Your task to perform on an android device: change the clock style Image 0: 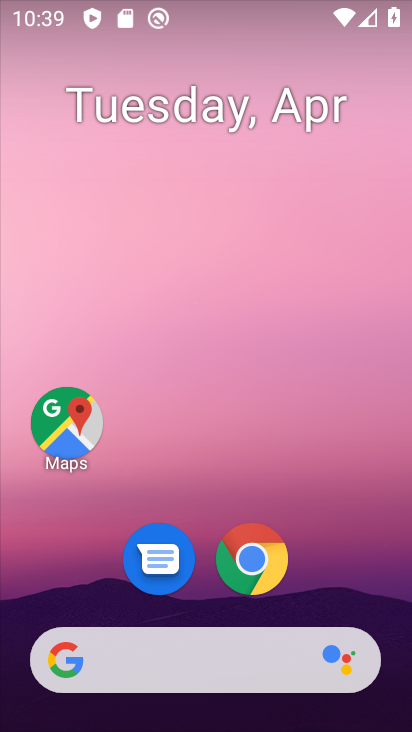
Step 0: drag from (304, 335) to (262, 68)
Your task to perform on an android device: change the clock style Image 1: 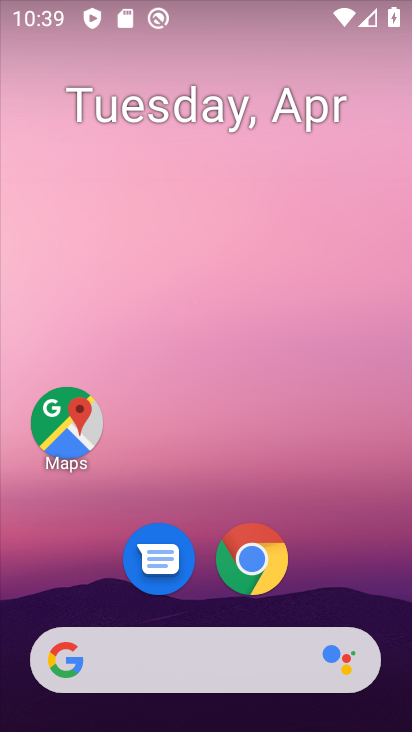
Step 1: drag from (311, 236) to (312, 112)
Your task to perform on an android device: change the clock style Image 2: 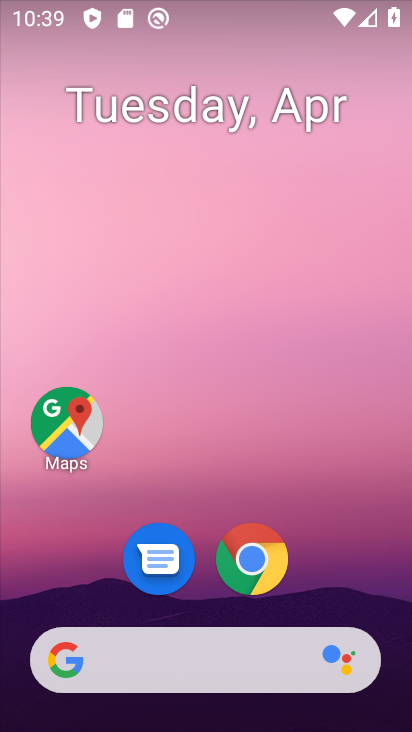
Step 2: drag from (319, 523) to (282, 33)
Your task to perform on an android device: change the clock style Image 3: 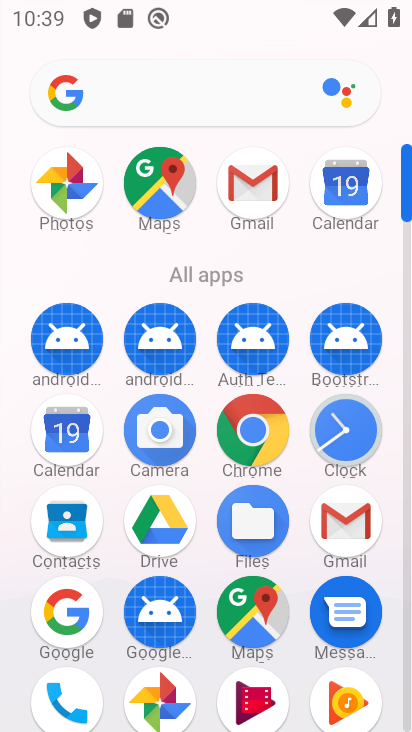
Step 3: click (339, 424)
Your task to perform on an android device: change the clock style Image 4: 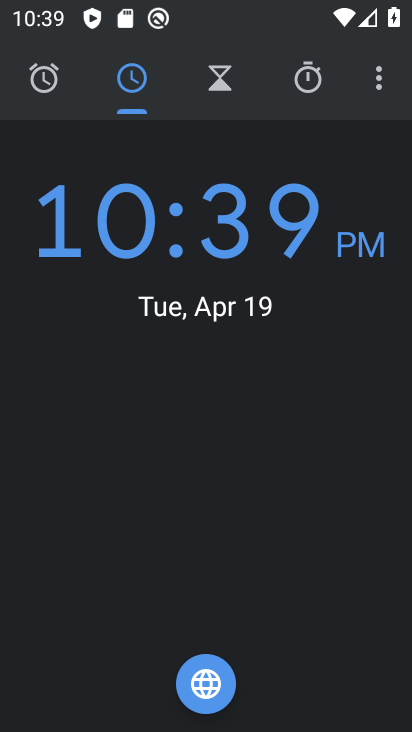
Step 4: click (379, 80)
Your task to perform on an android device: change the clock style Image 5: 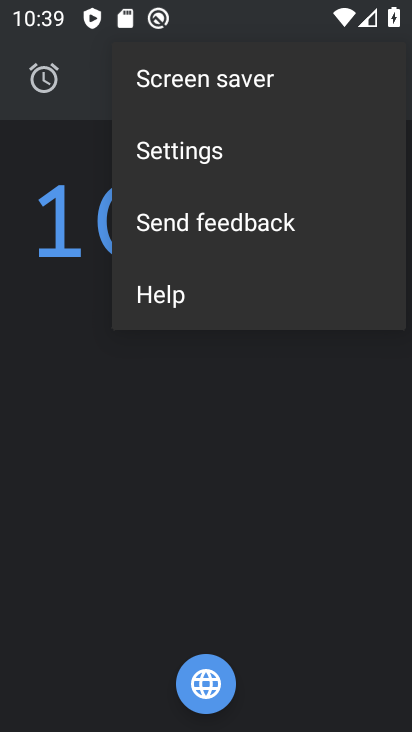
Step 5: click (180, 147)
Your task to perform on an android device: change the clock style Image 6: 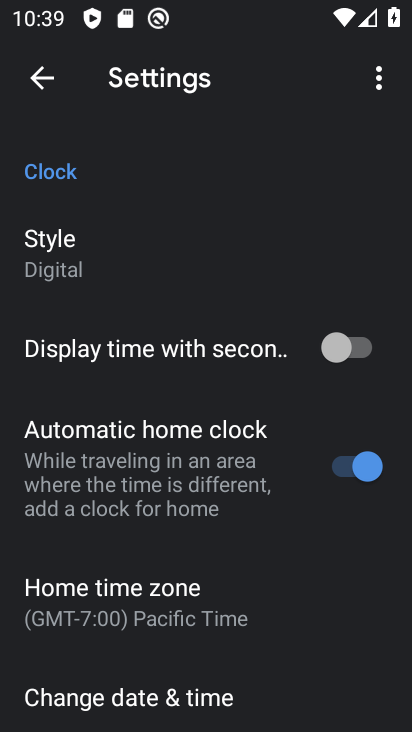
Step 6: click (82, 254)
Your task to perform on an android device: change the clock style Image 7: 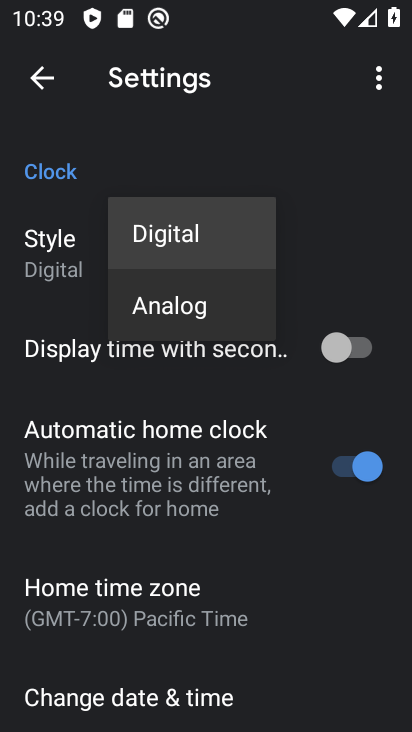
Step 7: click (164, 317)
Your task to perform on an android device: change the clock style Image 8: 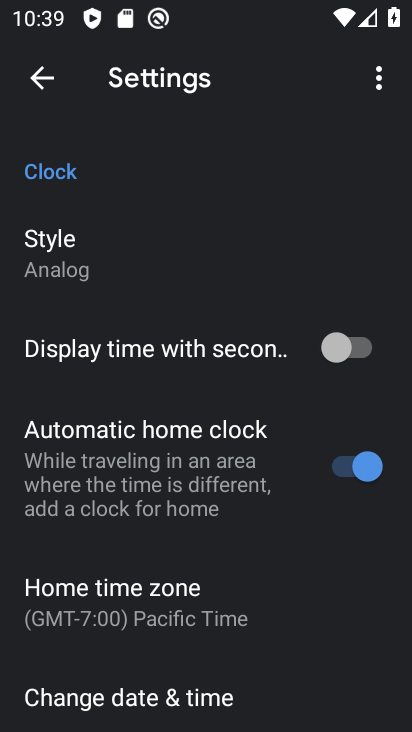
Step 8: task complete